Your task to perform on an android device: change the clock display to show seconds Image 0: 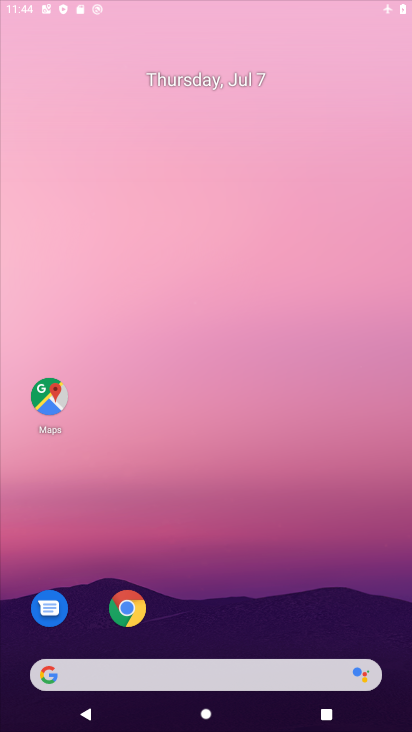
Step 0: click (162, 668)
Your task to perform on an android device: change the clock display to show seconds Image 1: 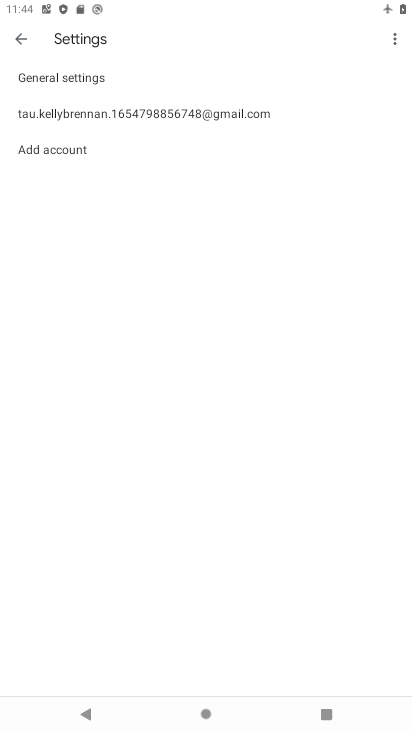
Step 1: press home button
Your task to perform on an android device: change the clock display to show seconds Image 2: 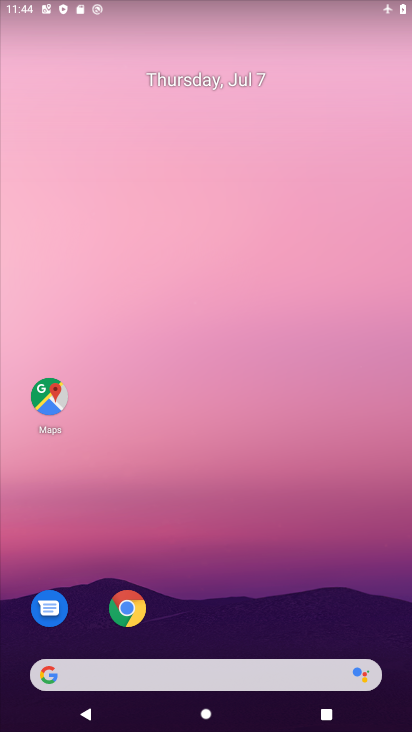
Step 2: drag from (202, 676) to (302, 113)
Your task to perform on an android device: change the clock display to show seconds Image 3: 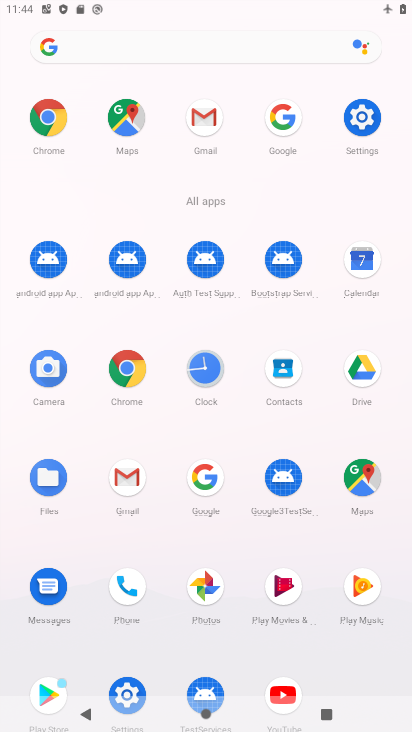
Step 3: click (187, 386)
Your task to perform on an android device: change the clock display to show seconds Image 4: 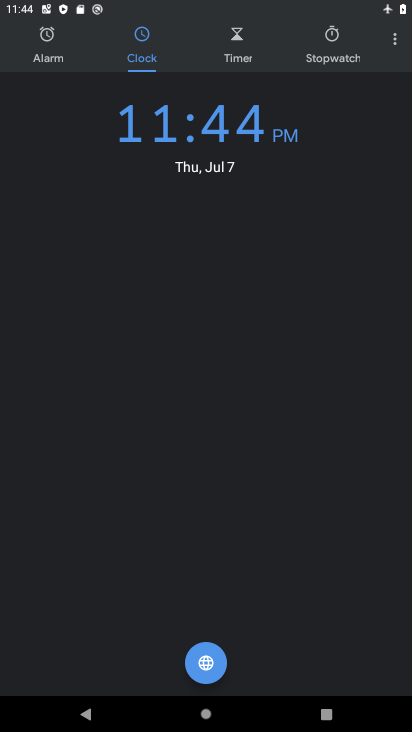
Step 4: click (384, 43)
Your task to perform on an android device: change the clock display to show seconds Image 5: 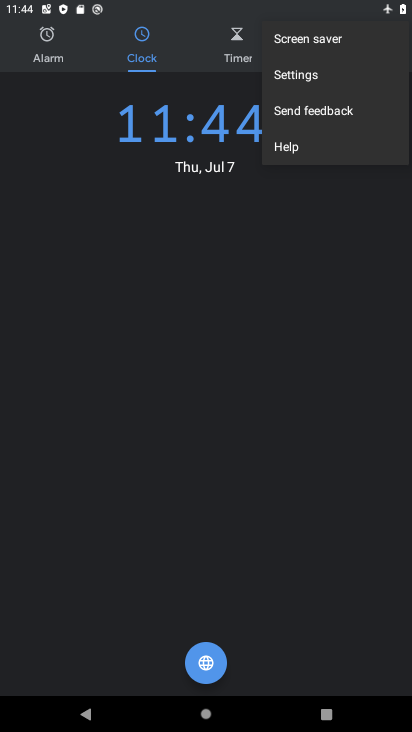
Step 5: click (370, 73)
Your task to perform on an android device: change the clock display to show seconds Image 6: 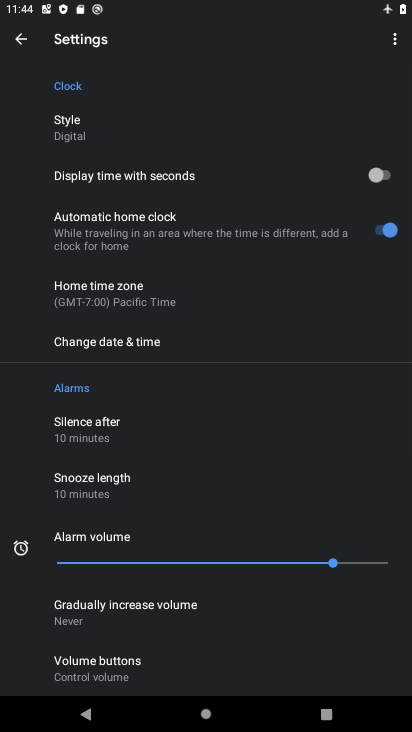
Step 6: click (392, 173)
Your task to perform on an android device: change the clock display to show seconds Image 7: 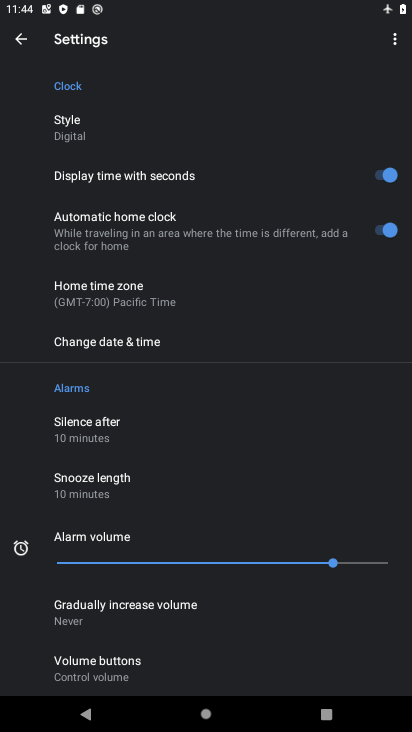
Step 7: task complete